Your task to perform on an android device: change the clock display to show seconds Image 0: 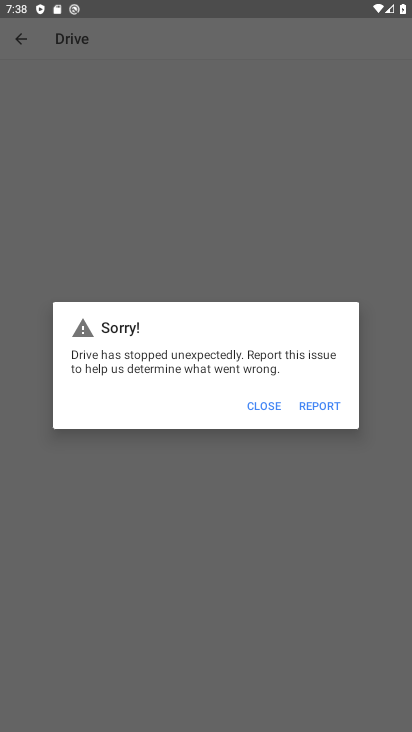
Step 0: press home button
Your task to perform on an android device: change the clock display to show seconds Image 1: 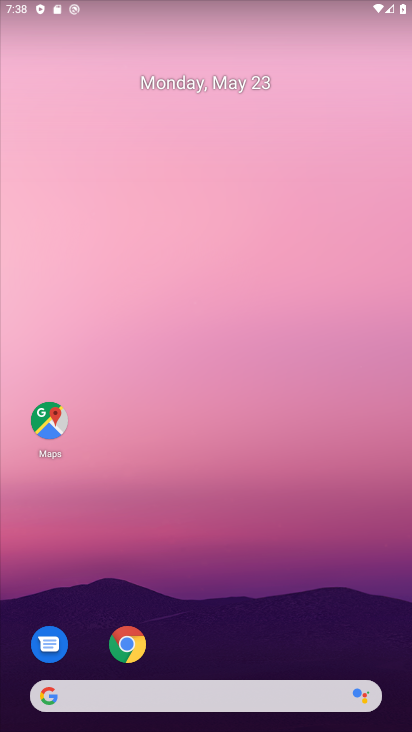
Step 1: drag from (195, 594) to (175, 40)
Your task to perform on an android device: change the clock display to show seconds Image 2: 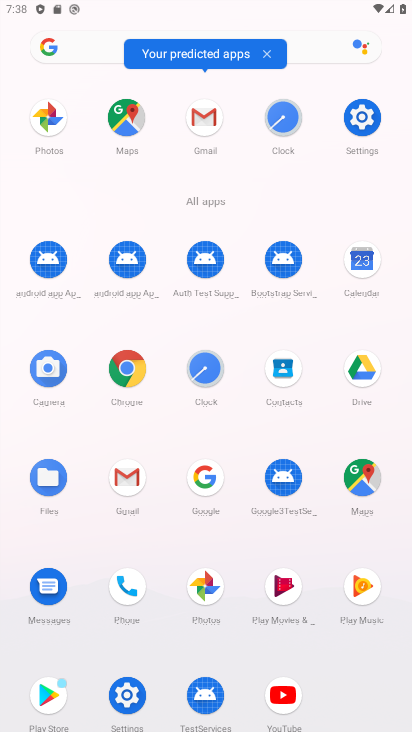
Step 2: click (277, 121)
Your task to perform on an android device: change the clock display to show seconds Image 3: 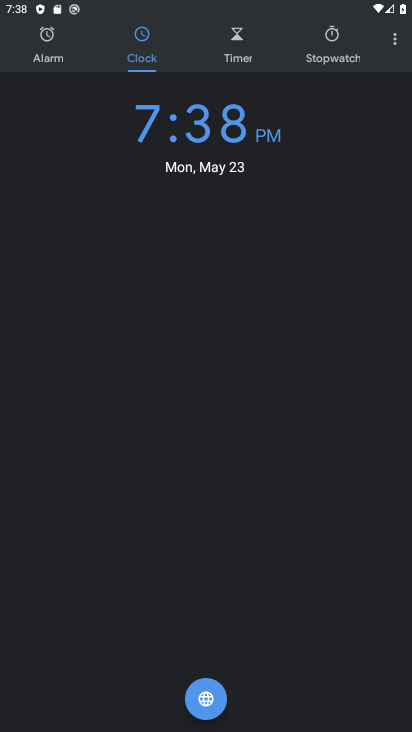
Step 3: click (399, 39)
Your task to perform on an android device: change the clock display to show seconds Image 4: 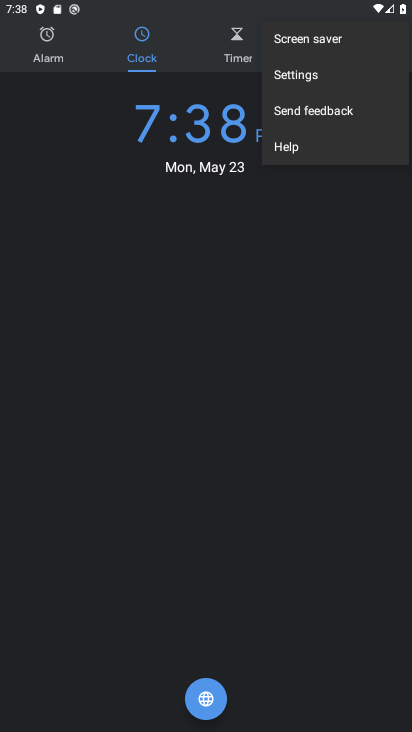
Step 4: click (339, 70)
Your task to perform on an android device: change the clock display to show seconds Image 5: 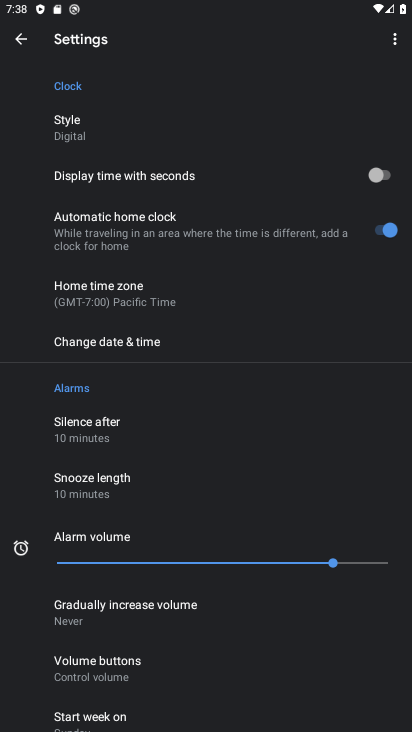
Step 5: click (376, 176)
Your task to perform on an android device: change the clock display to show seconds Image 6: 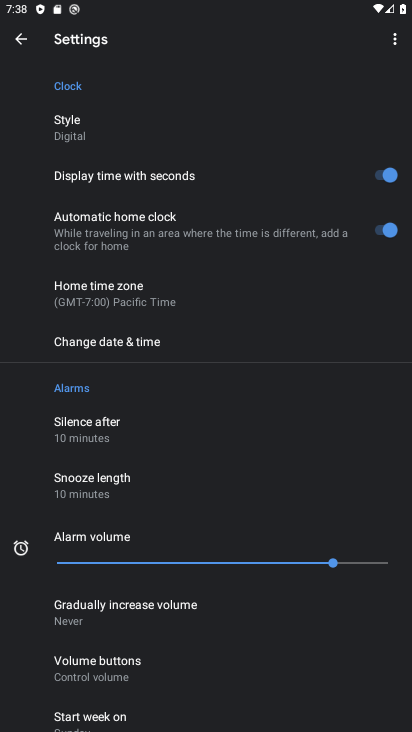
Step 6: task complete